Your task to perform on an android device: turn on notifications settings in the gmail app Image 0: 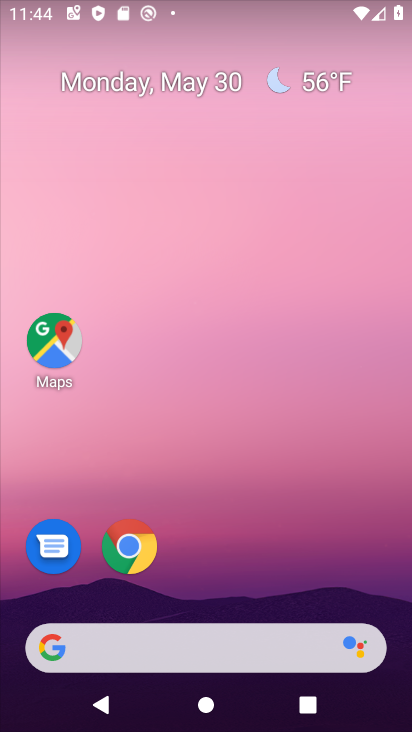
Step 0: drag from (279, 550) to (171, 132)
Your task to perform on an android device: turn on notifications settings in the gmail app Image 1: 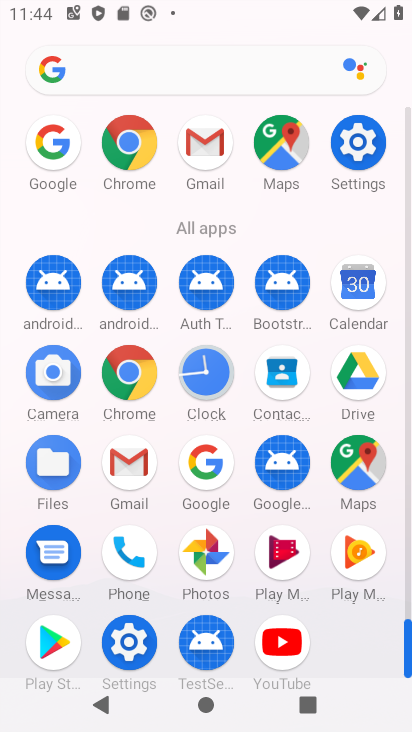
Step 1: click (202, 140)
Your task to perform on an android device: turn on notifications settings in the gmail app Image 2: 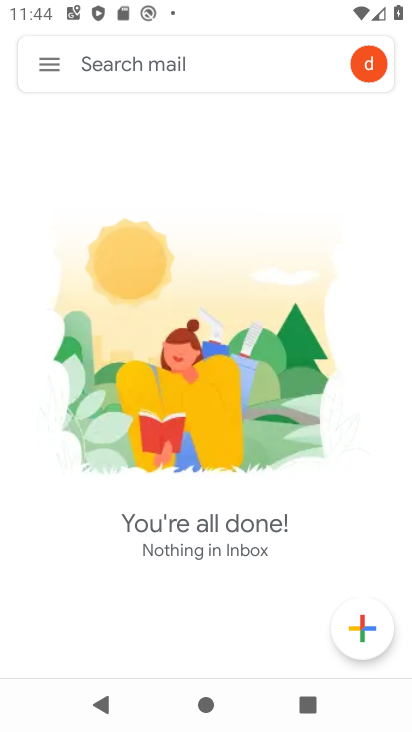
Step 2: click (47, 64)
Your task to perform on an android device: turn on notifications settings in the gmail app Image 3: 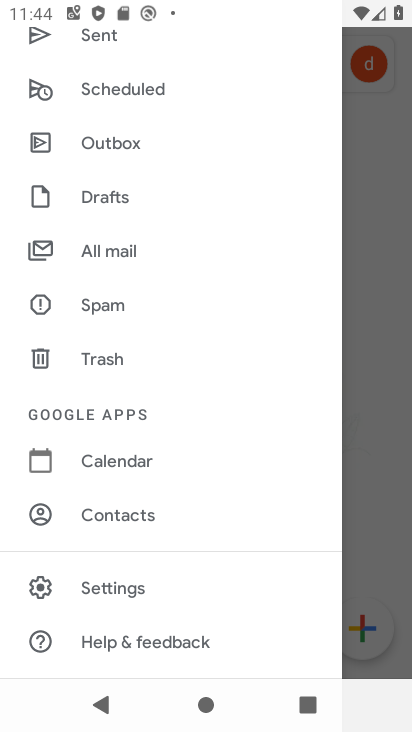
Step 3: click (121, 589)
Your task to perform on an android device: turn on notifications settings in the gmail app Image 4: 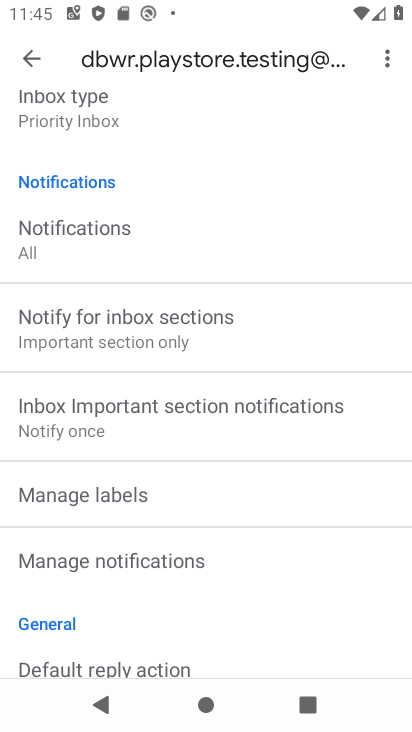
Step 4: click (135, 565)
Your task to perform on an android device: turn on notifications settings in the gmail app Image 5: 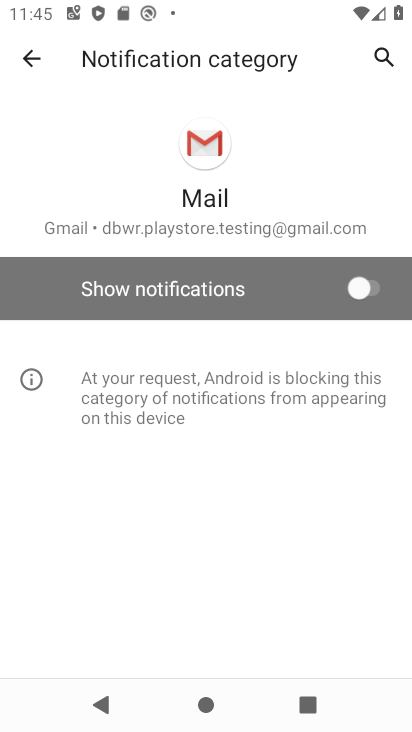
Step 5: click (372, 293)
Your task to perform on an android device: turn on notifications settings in the gmail app Image 6: 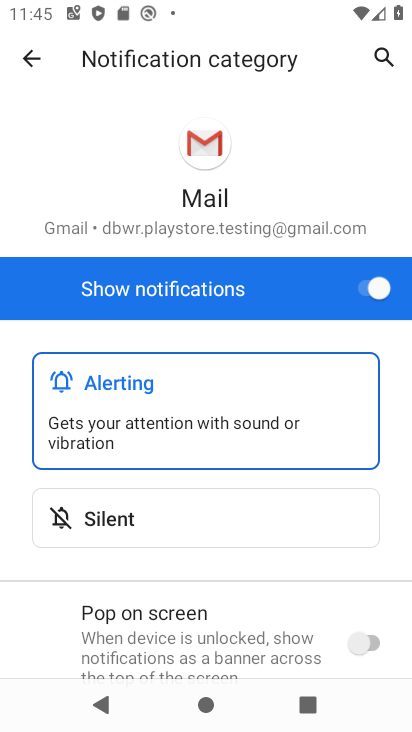
Step 6: task complete